Your task to perform on an android device: turn notification dots off Image 0: 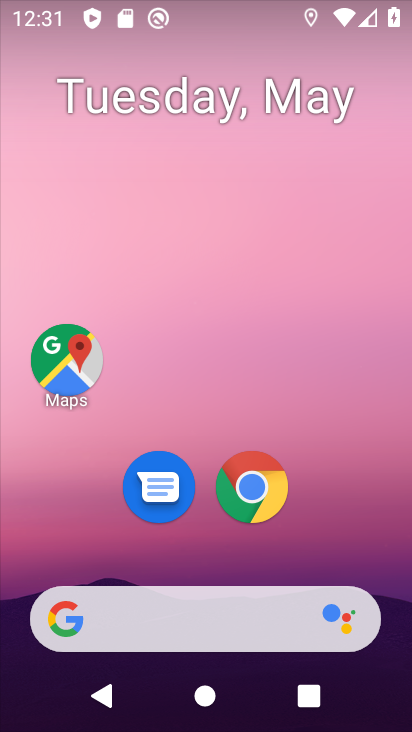
Step 0: drag from (305, 556) to (321, 121)
Your task to perform on an android device: turn notification dots off Image 1: 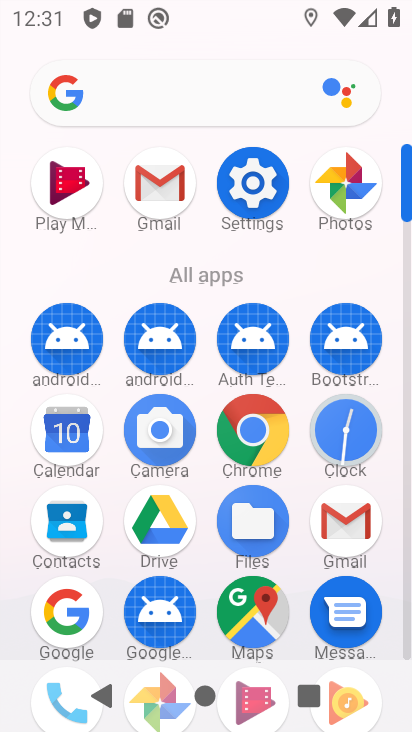
Step 1: click (254, 197)
Your task to perform on an android device: turn notification dots off Image 2: 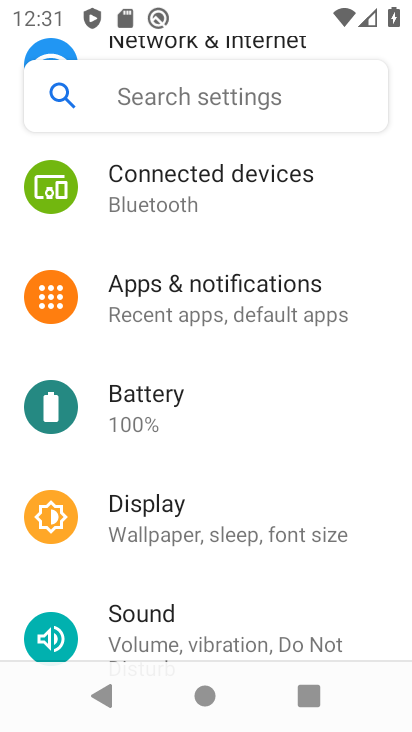
Step 2: click (232, 323)
Your task to perform on an android device: turn notification dots off Image 3: 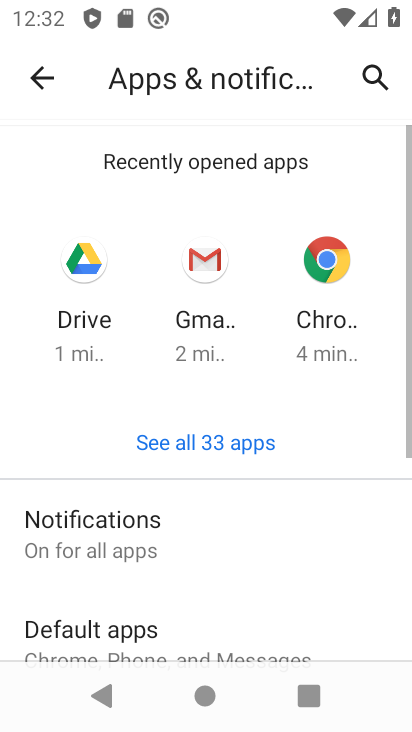
Step 3: drag from (272, 542) to (283, 311)
Your task to perform on an android device: turn notification dots off Image 4: 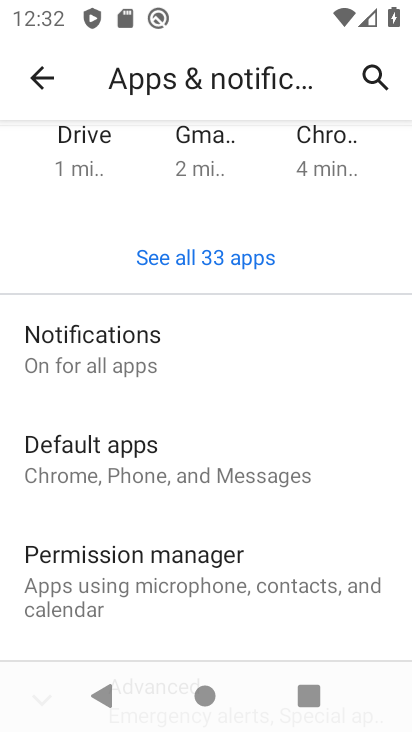
Step 4: click (154, 359)
Your task to perform on an android device: turn notification dots off Image 5: 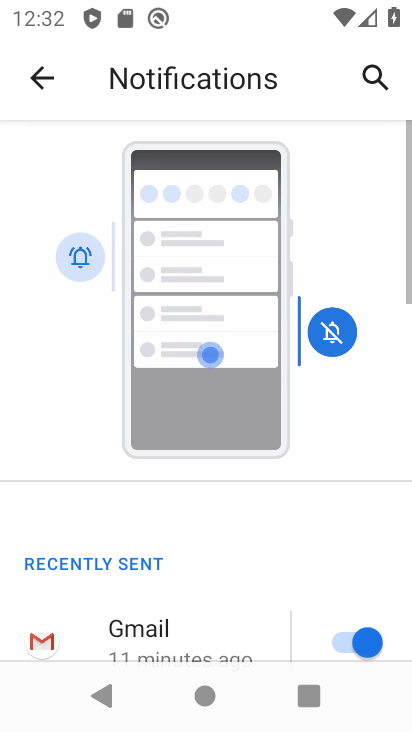
Step 5: drag from (309, 587) to (370, 153)
Your task to perform on an android device: turn notification dots off Image 6: 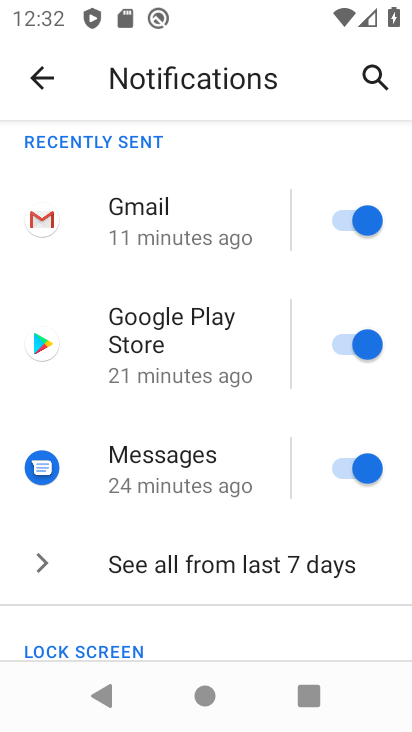
Step 6: drag from (222, 600) to (221, 195)
Your task to perform on an android device: turn notification dots off Image 7: 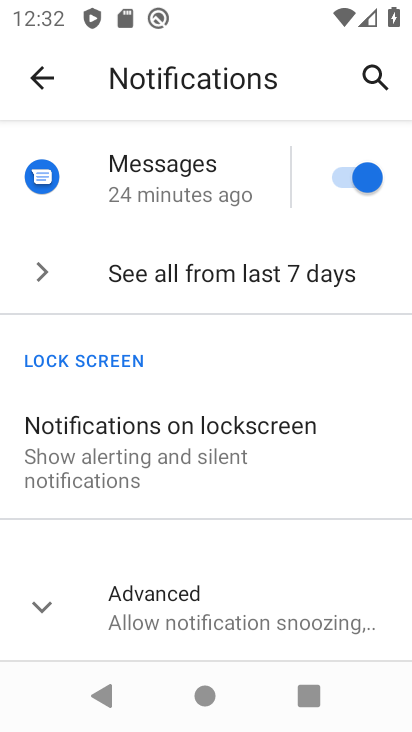
Step 7: click (215, 604)
Your task to perform on an android device: turn notification dots off Image 8: 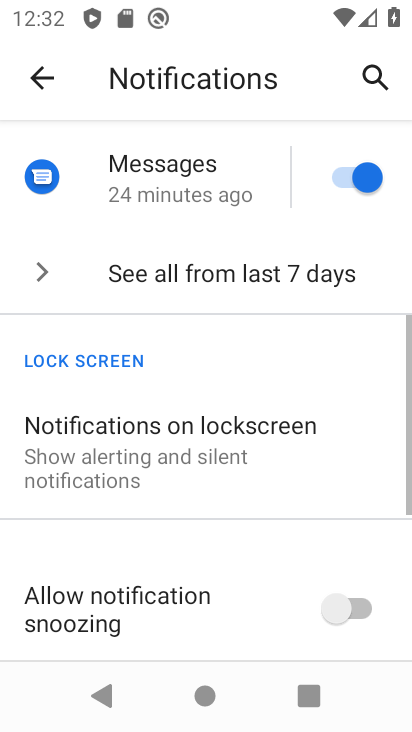
Step 8: drag from (232, 577) to (242, 223)
Your task to perform on an android device: turn notification dots off Image 9: 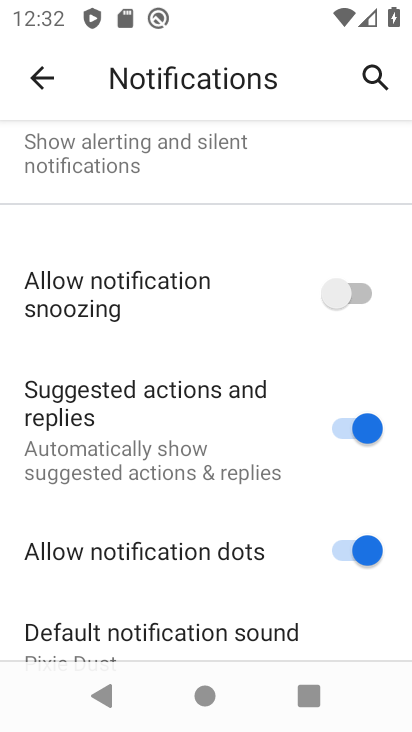
Step 9: click (336, 550)
Your task to perform on an android device: turn notification dots off Image 10: 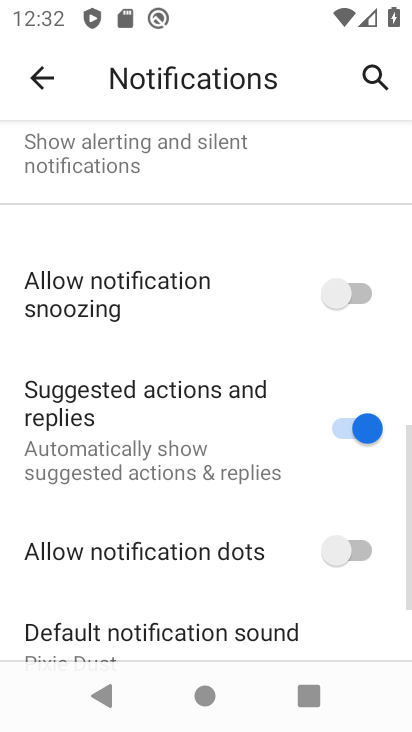
Step 10: task complete